Your task to perform on an android device: open a new tab in the chrome app Image 0: 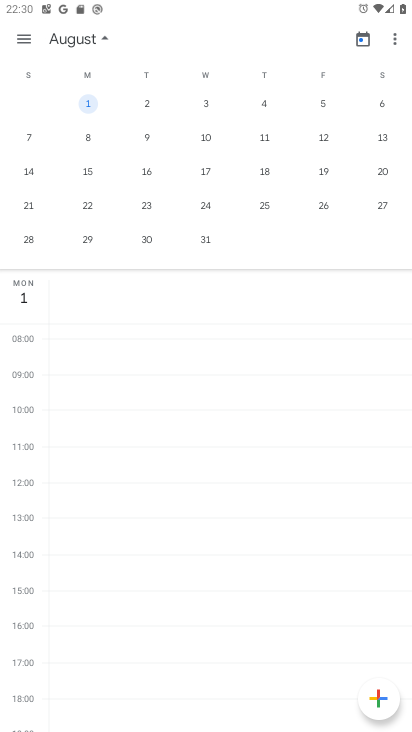
Step 0: press home button
Your task to perform on an android device: open a new tab in the chrome app Image 1: 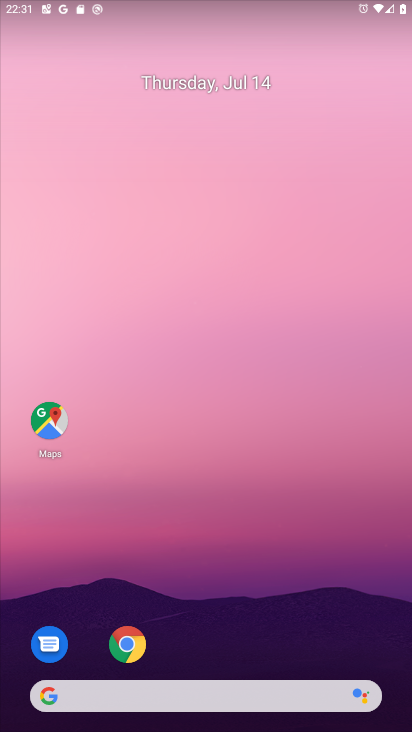
Step 1: click (121, 649)
Your task to perform on an android device: open a new tab in the chrome app Image 2: 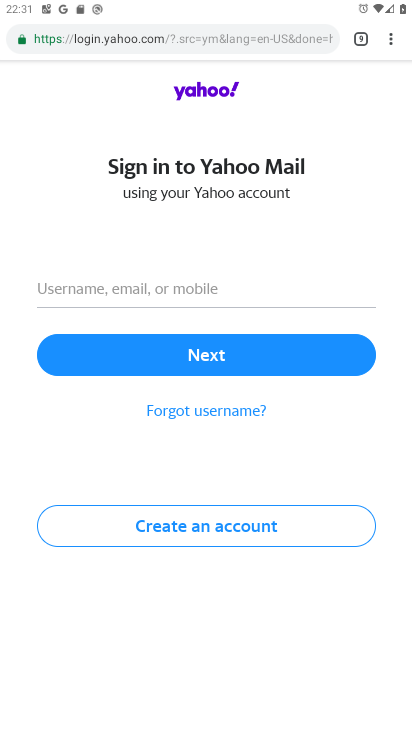
Step 2: click (361, 43)
Your task to perform on an android device: open a new tab in the chrome app Image 3: 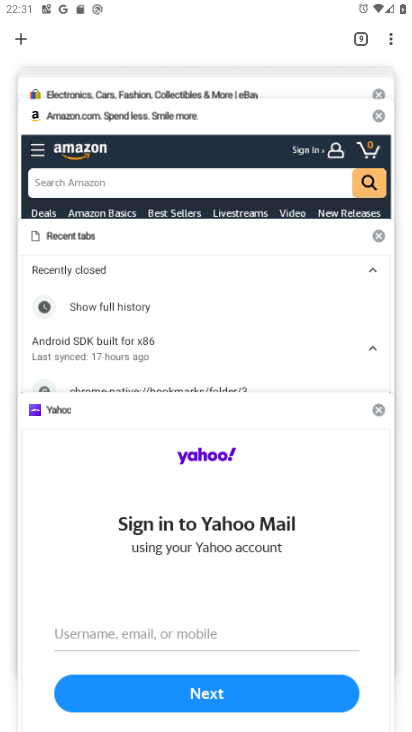
Step 3: click (29, 40)
Your task to perform on an android device: open a new tab in the chrome app Image 4: 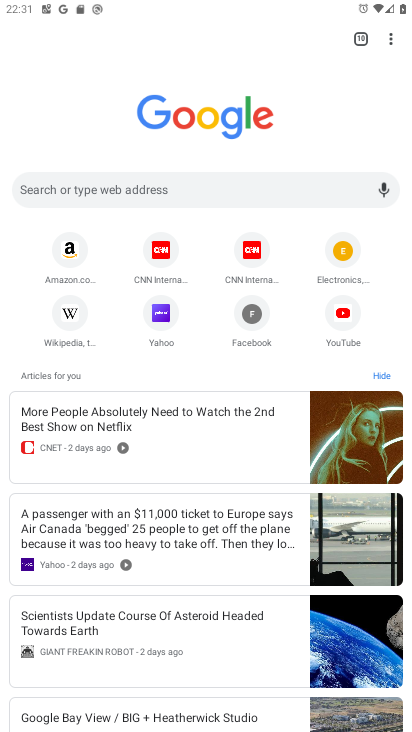
Step 4: task complete